Your task to perform on an android device: turn on airplane mode Image 0: 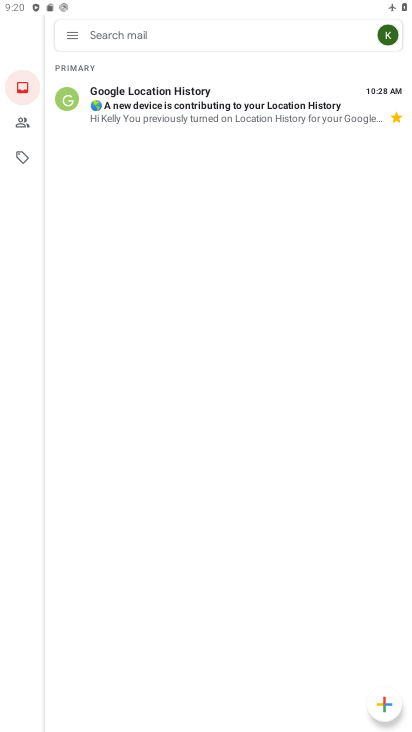
Step 0: press home button
Your task to perform on an android device: turn on airplane mode Image 1: 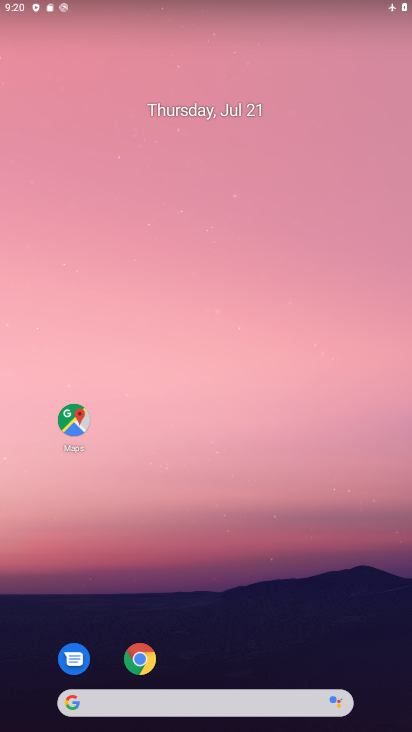
Step 1: drag from (190, 663) to (123, 38)
Your task to perform on an android device: turn on airplane mode Image 2: 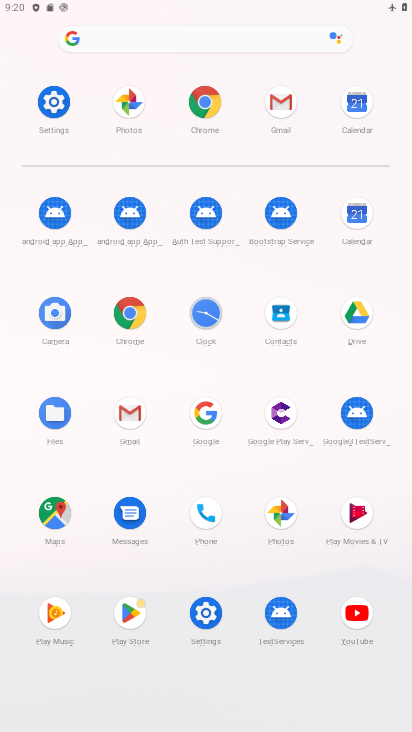
Step 2: click (204, 617)
Your task to perform on an android device: turn on airplane mode Image 3: 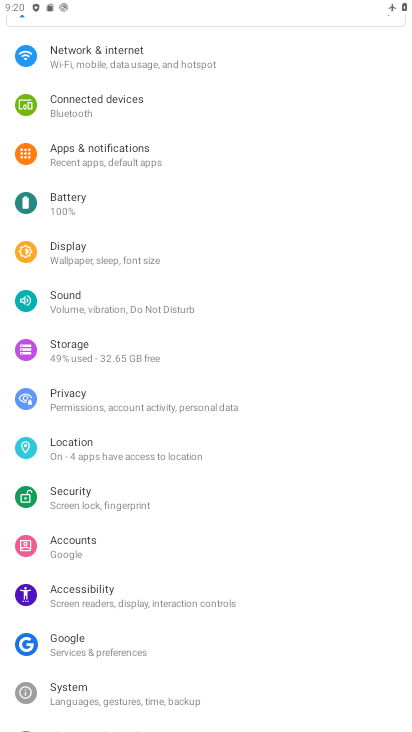
Step 3: click (114, 64)
Your task to perform on an android device: turn on airplane mode Image 4: 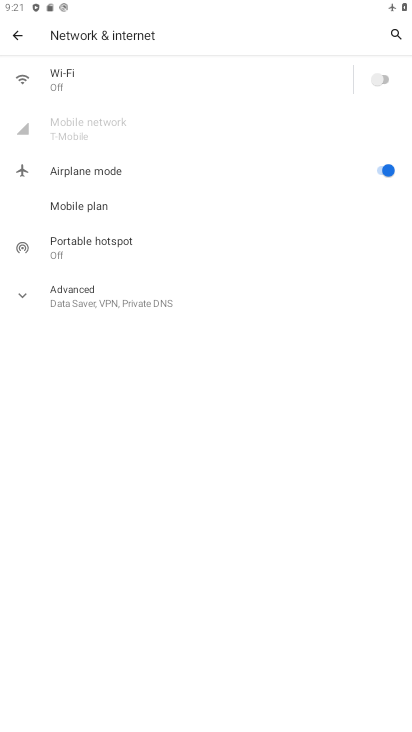
Step 4: task complete